Your task to perform on an android device: turn off location Image 0: 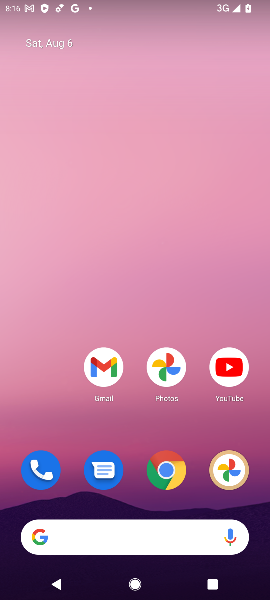
Step 0: drag from (158, 279) to (161, 79)
Your task to perform on an android device: turn off location Image 1: 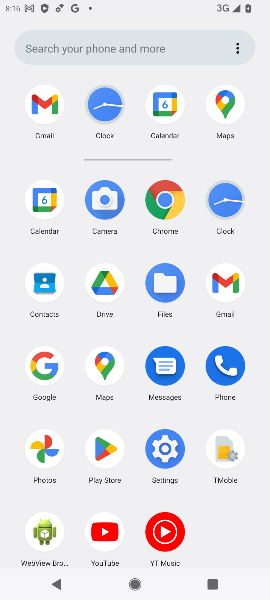
Step 1: click (166, 451)
Your task to perform on an android device: turn off location Image 2: 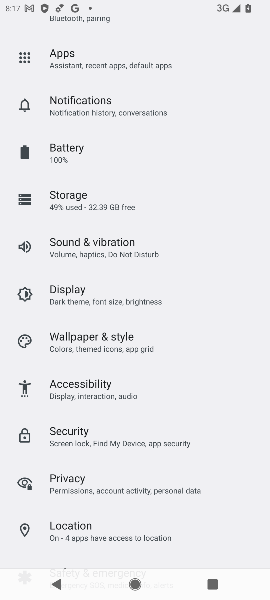
Step 2: click (102, 534)
Your task to perform on an android device: turn off location Image 3: 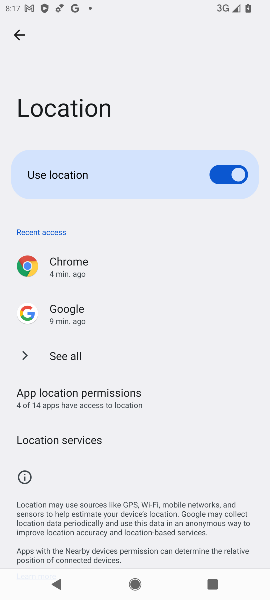
Step 3: click (215, 179)
Your task to perform on an android device: turn off location Image 4: 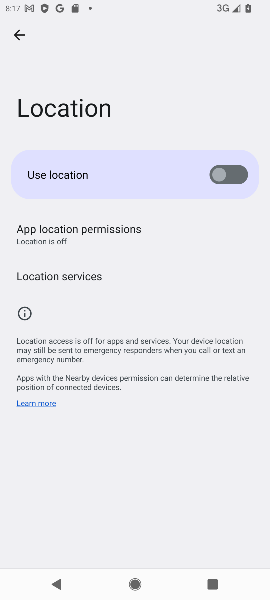
Step 4: task complete